Your task to perform on an android device: Open calendar and show me the first week of next month Image 0: 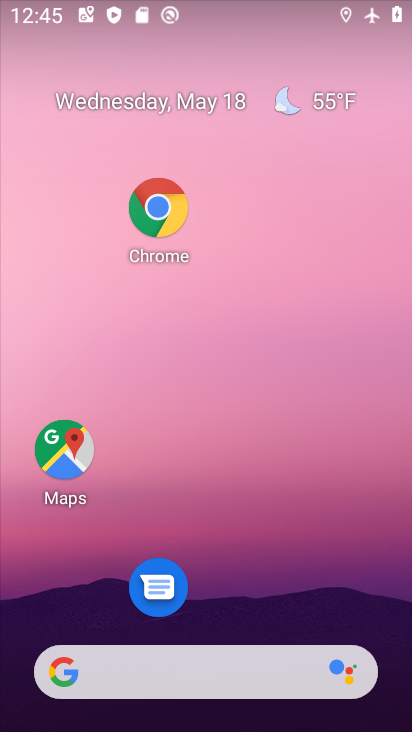
Step 0: drag from (247, 143) to (260, 99)
Your task to perform on an android device: Open calendar and show me the first week of next month Image 1: 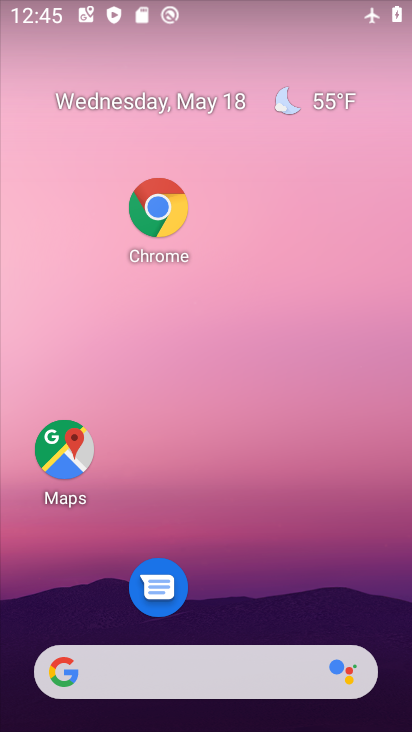
Step 1: click (201, 139)
Your task to perform on an android device: Open calendar and show me the first week of next month Image 2: 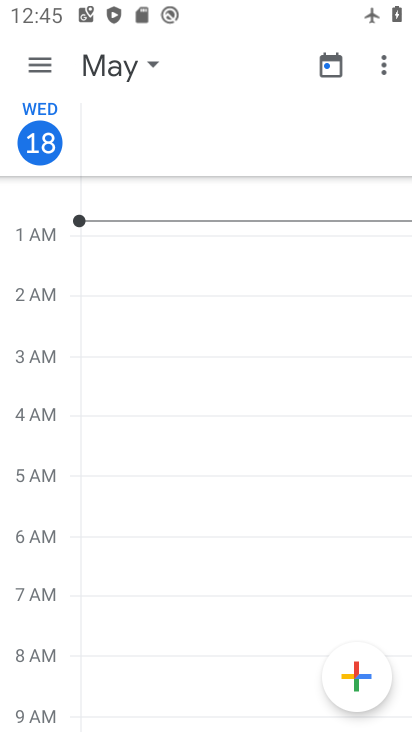
Step 2: click (277, 18)
Your task to perform on an android device: Open calendar and show me the first week of next month Image 3: 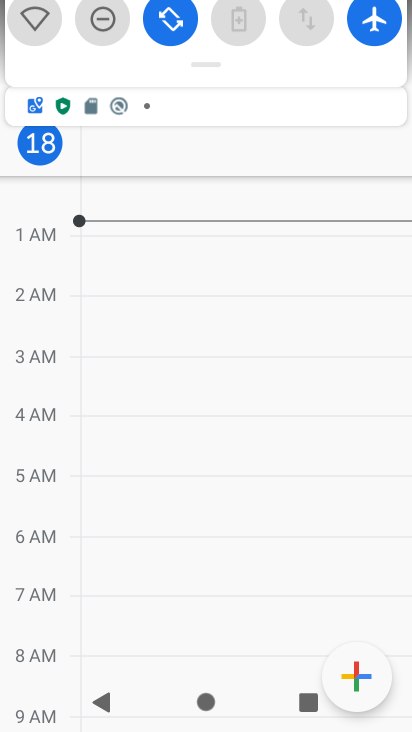
Step 3: press back button
Your task to perform on an android device: Open calendar and show me the first week of next month Image 4: 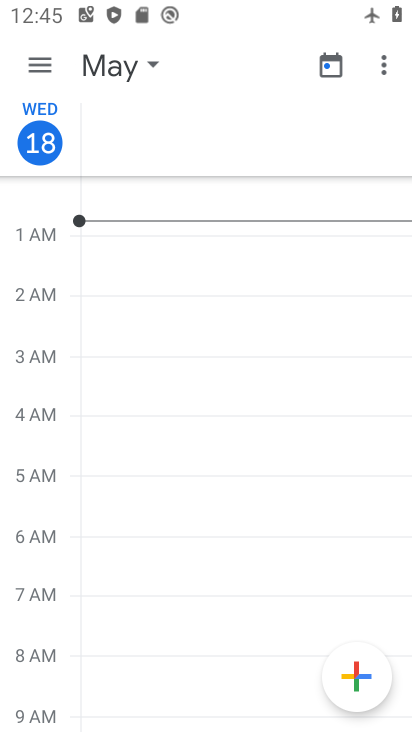
Step 4: click (117, 75)
Your task to perform on an android device: Open calendar and show me the first week of next month Image 5: 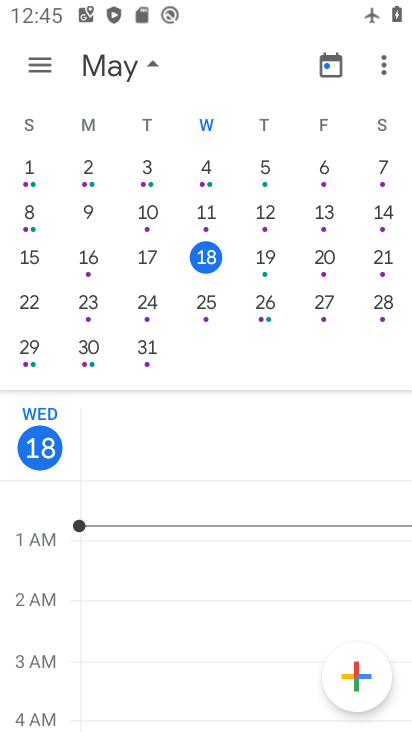
Step 5: click (106, 61)
Your task to perform on an android device: Open calendar and show me the first week of next month Image 6: 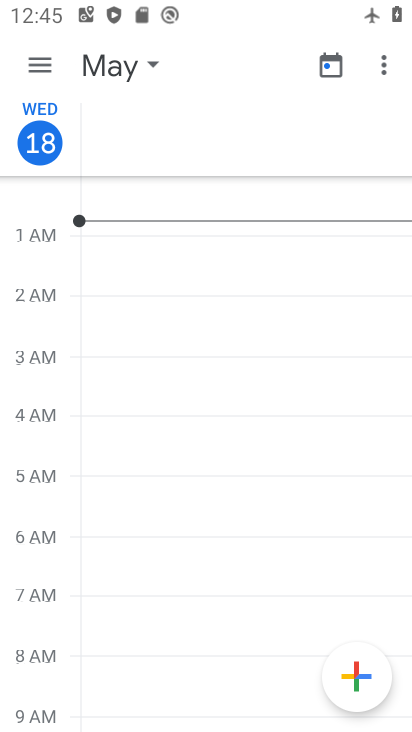
Step 6: drag from (304, 239) to (30, 231)
Your task to perform on an android device: Open calendar and show me the first week of next month Image 7: 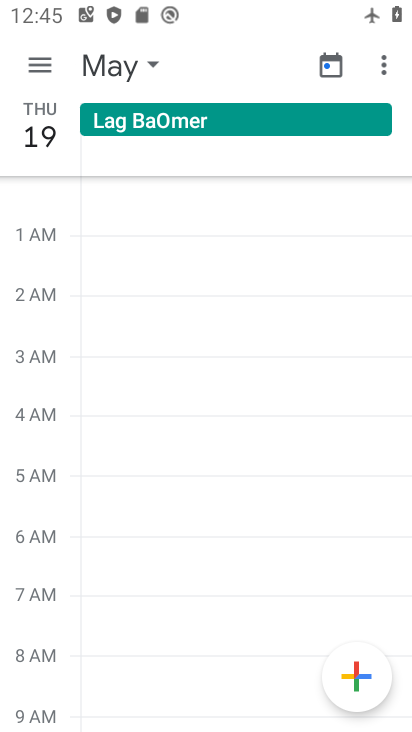
Step 7: click (47, 62)
Your task to perform on an android device: Open calendar and show me the first week of next month Image 8: 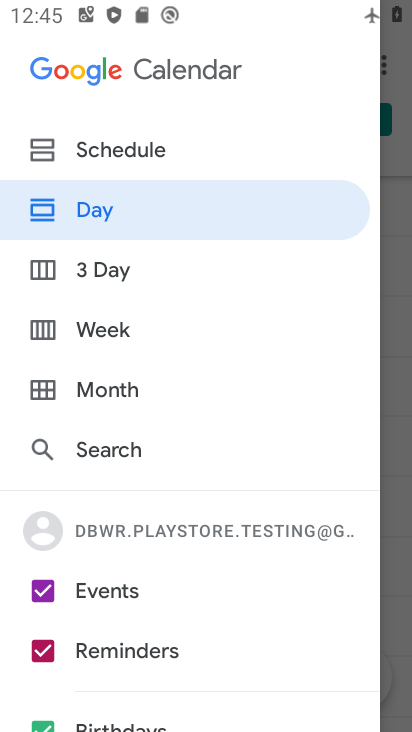
Step 8: click (105, 334)
Your task to perform on an android device: Open calendar and show me the first week of next month Image 9: 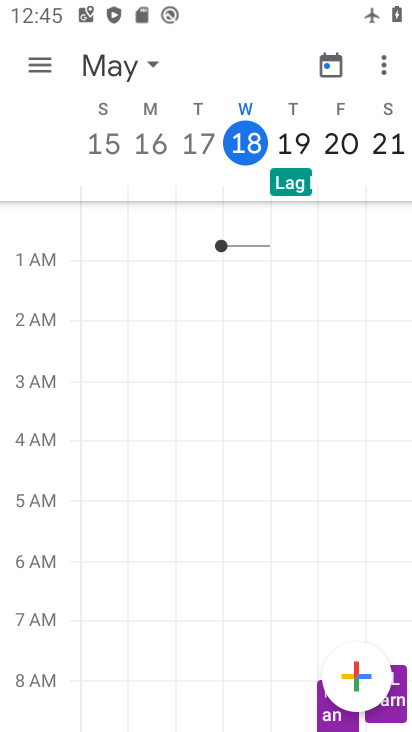
Step 9: click (120, 76)
Your task to perform on an android device: Open calendar and show me the first week of next month Image 10: 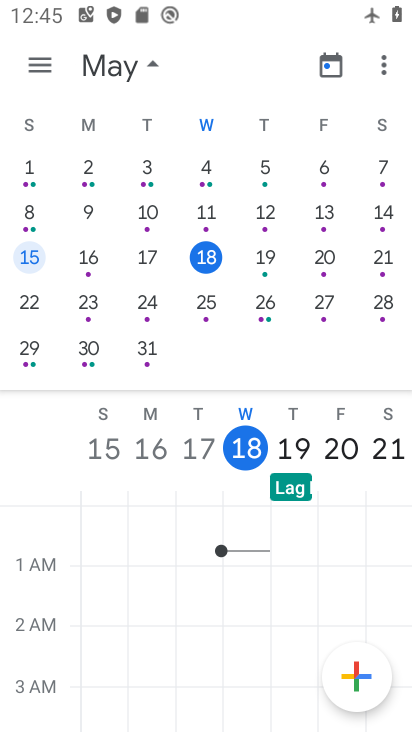
Step 10: drag from (3, 236) to (35, 247)
Your task to perform on an android device: Open calendar and show me the first week of next month Image 11: 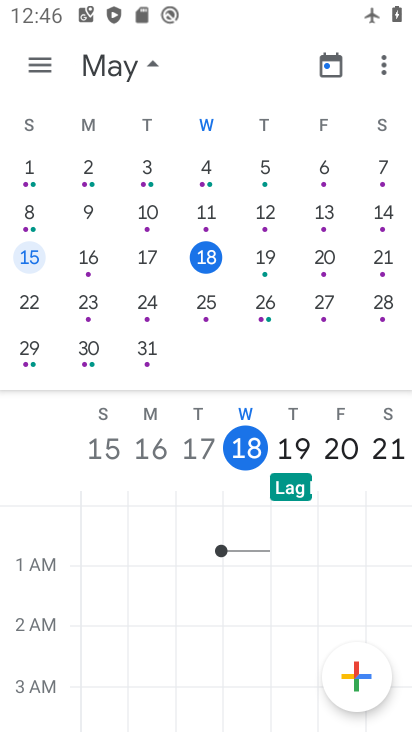
Step 11: click (18, 203)
Your task to perform on an android device: Open calendar and show me the first week of next month Image 12: 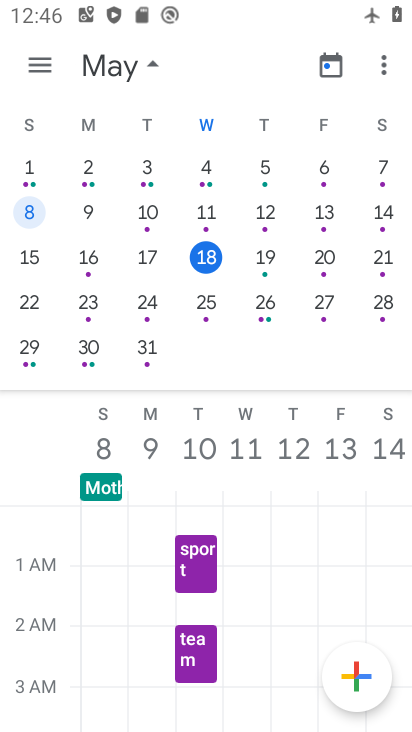
Step 12: drag from (320, 220) to (2, 232)
Your task to perform on an android device: Open calendar and show me the first week of next month Image 13: 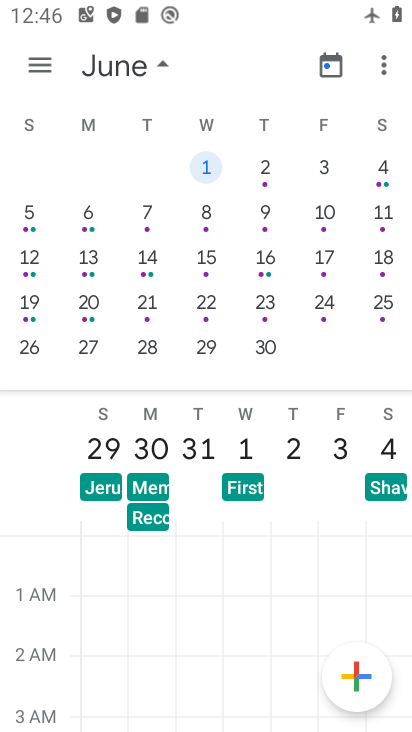
Step 13: click (32, 222)
Your task to perform on an android device: Open calendar and show me the first week of next month Image 14: 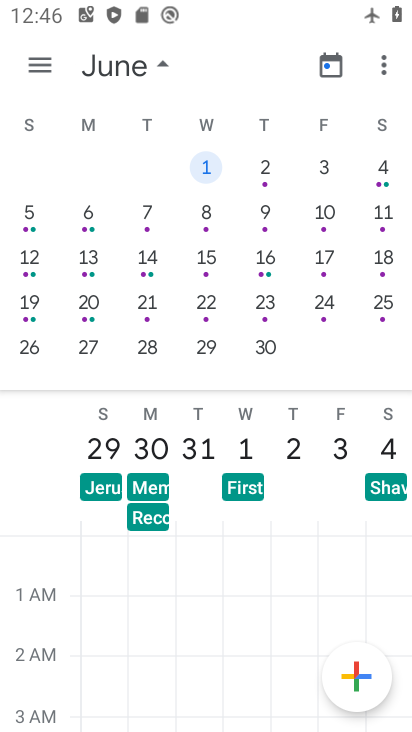
Step 14: click (29, 234)
Your task to perform on an android device: Open calendar and show me the first week of next month Image 15: 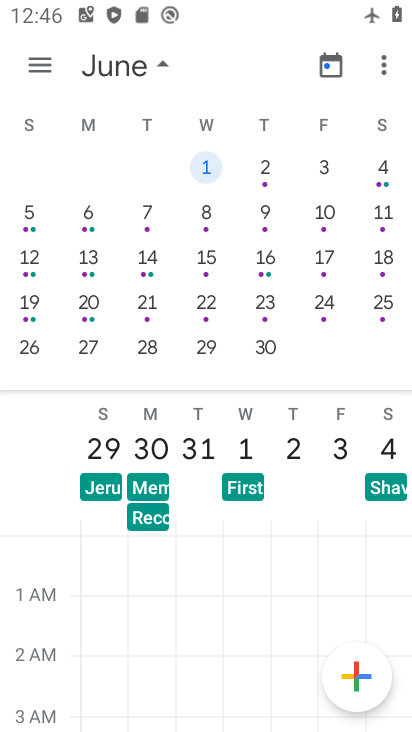
Step 15: click (29, 234)
Your task to perform on an android device: Open calendar and show me the first week of next month Image 16: 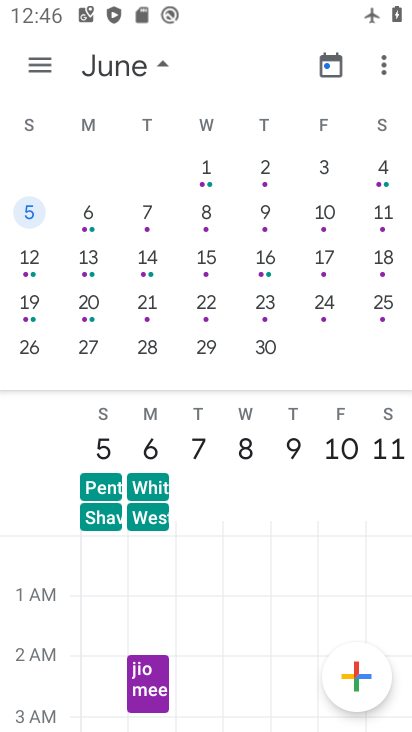
Step 16: drag from (235, 551) to (255, 256)
Your task to perform on an android device: Open calendar and show me the first week of next month Image 17: 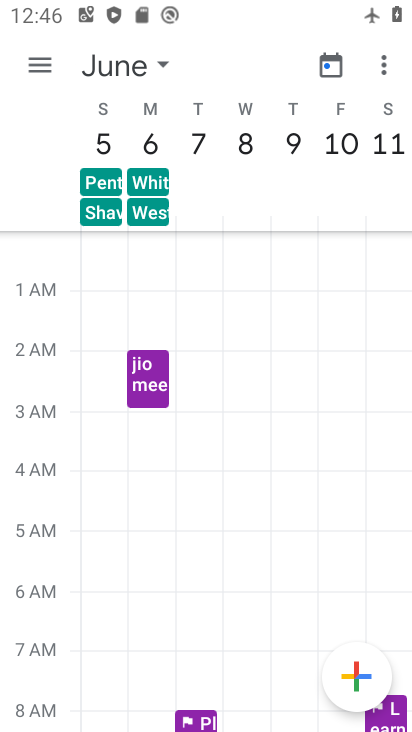
Step 17: drag from (251, 560) to (247, 212)
Your task to perform on an android device: Open calendar and show me the first week of next month Image 18: 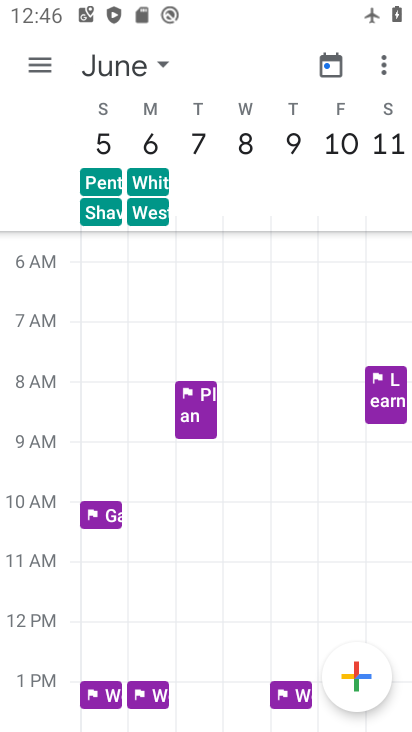
Step 18: click (254, 329)
Your task to perform on an android device: Open calendar and show me the first week of next month Image 19: 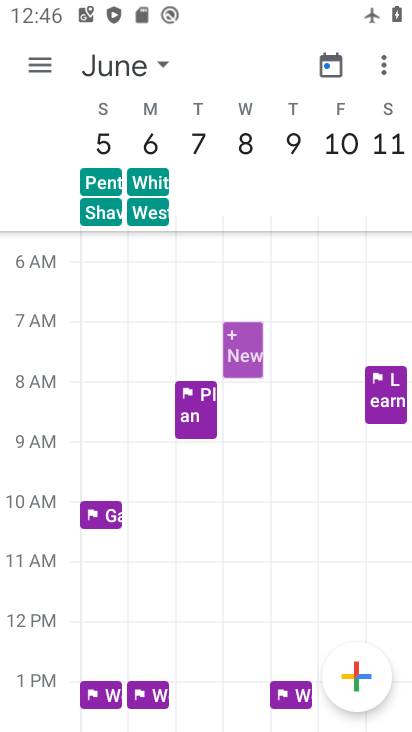
Step 19: task complete